Your task to perform on an android device: change timer sound Image 0: 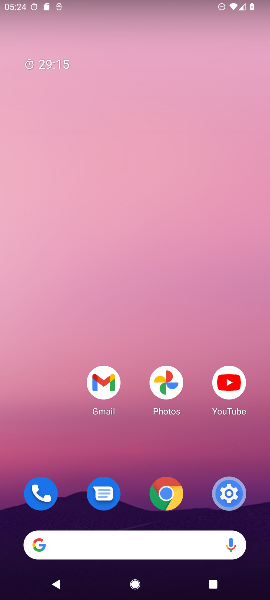
Step 0: press home button
Your task to perform on an android device: change timer sound Image 1: 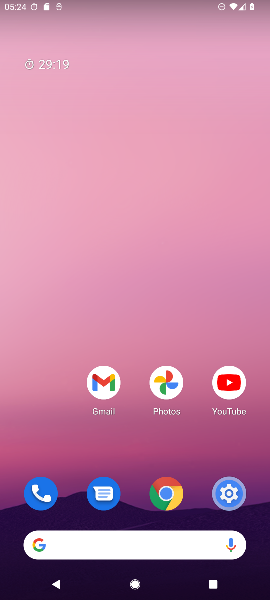
Step 1: drag from (71, 483) to (82, 200)
Your task to perform on an android device: change timer sound Image 2: 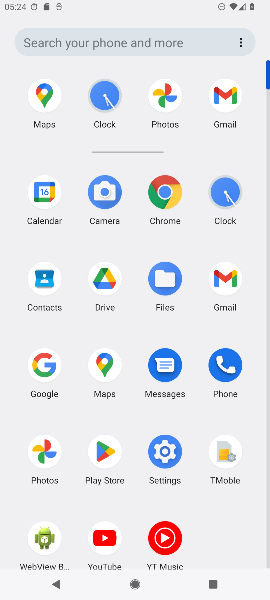
Step 2: click (224, 192)
Your task to perform on an android device: change timer sound Image 3: 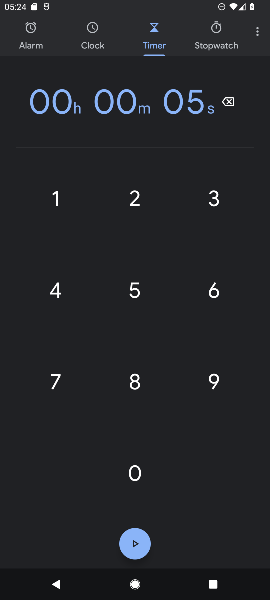
Step 3: click (257, 33)
Your task to perform on an android device: change timer sound Image 4: 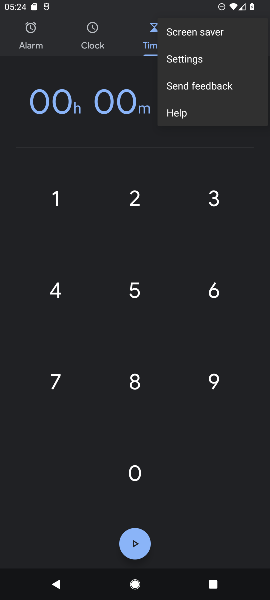
Step 4: click (213, 59)
Your task to perform on an android device: change timer sound Image 5: 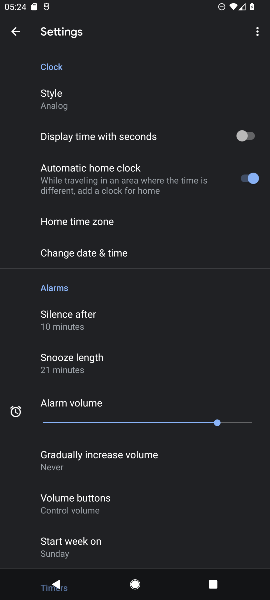
Step 5: drag from (201, 282) to (212, 171)
Your task to perform on an android device: change timer sound Image 6: 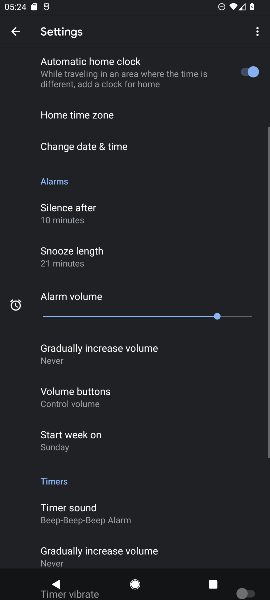
Step 6: drag from (183, 306) to (206, 187)
Your task to perform on an android device: change timer sound Image 7: 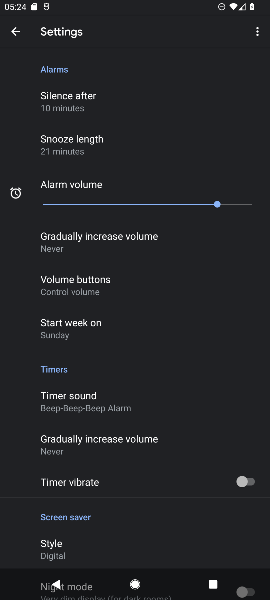
Step 7: drag from (192, 335) to (209, 215)
Your task to perform on an android device: change timer sound Image 8: 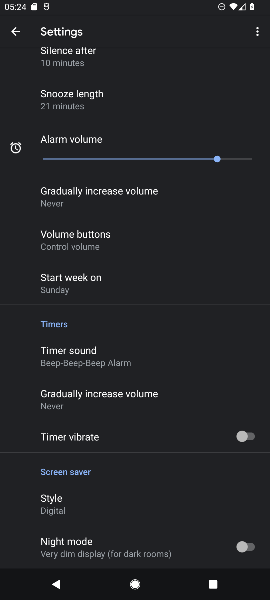
Step 8: drag from (193, 370) to (204, 250)
Your task to perform on an android device: change timer sound Image 9: 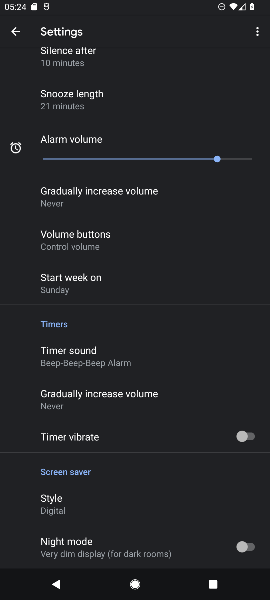
Step 9: click (150, 356)
Your task to perform on an android device: change timer sound Image 10: 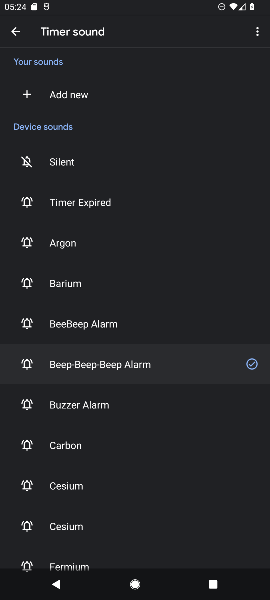
Step 10: click (100, 209)
Your task to perform on an android device: change timer sound Image 11: 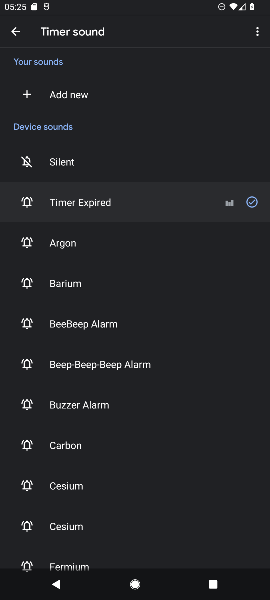
Step 11: task complete